Your task to perform on an android device: What's on my calendar today? Image 0: 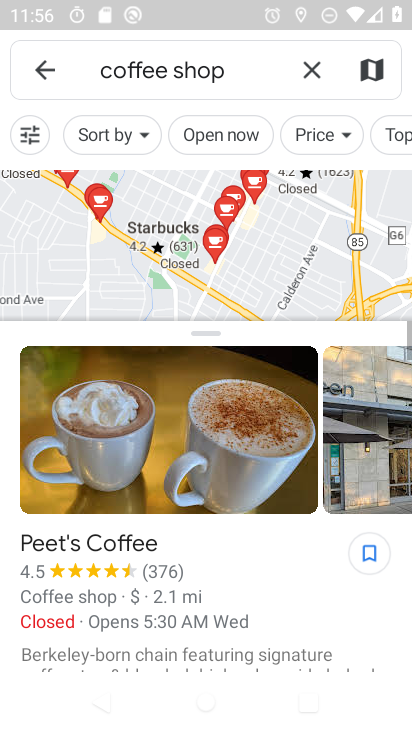
Step 0: press home button
Your task to perform on an android device: What's on my calendar today? Image 1: 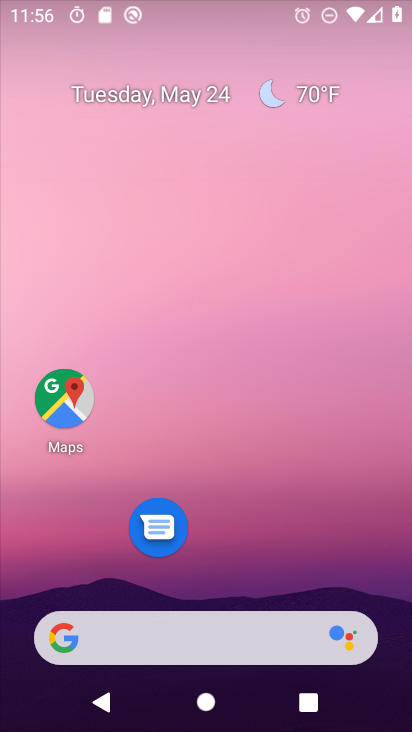
Step 1: drag from (245, 558) to (278, 96)
Your task to perform on an android device: What's on my calendar today? Image 2: 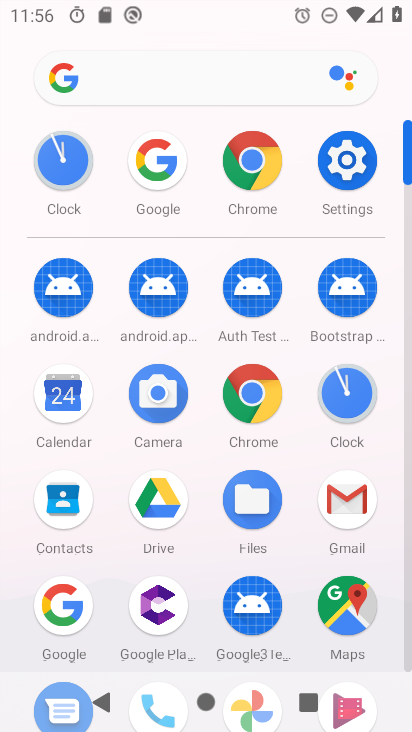
Step 2: click (67, 397)
Your task to perform on an android device: What's on my calendar today? Image 3: 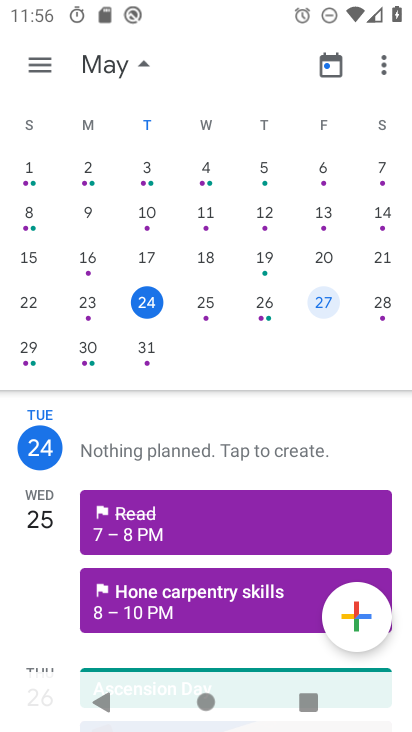
Step 3: click (153, 305)
Your task to perform on an android device: What's on my calendar today? Image 4: 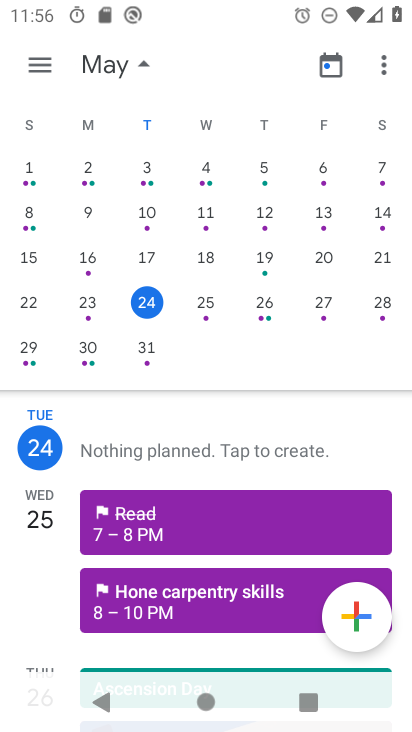
Step 4: task complete